Your task to perform on an android device: When is my next appointment? Image 0: 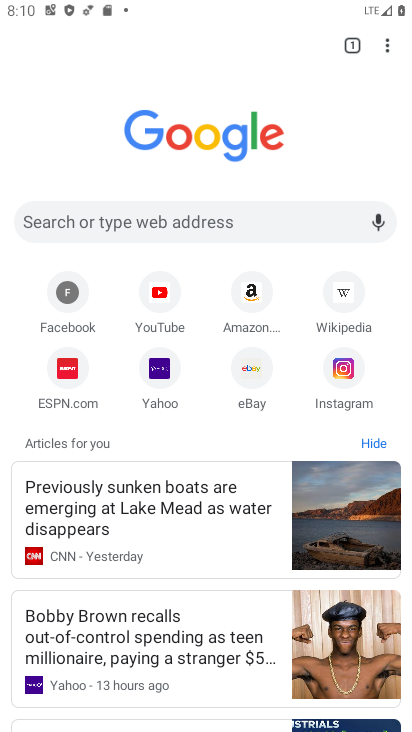
Step 0: press home button
Your task to perform on an android device: When is my next appointment? Image 1: 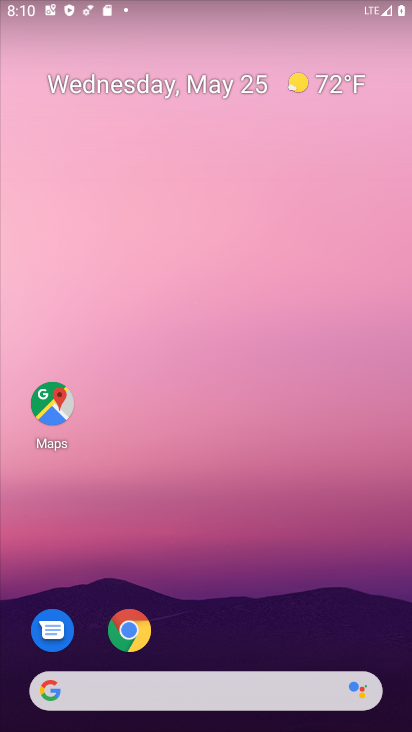
Step 1: drag from (242, 636) to (233, 288)
Your task to perform on an android device: When is my next appointment? Image 2: 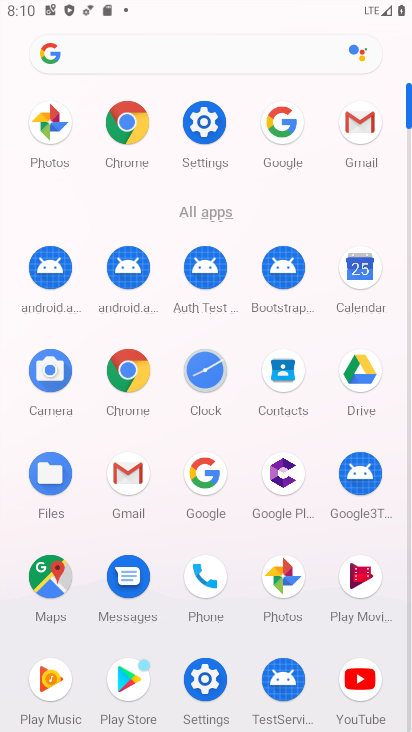
Step 2: click (354, 269)
Your task to perform on an android device: When is my next appointment? Image 3: 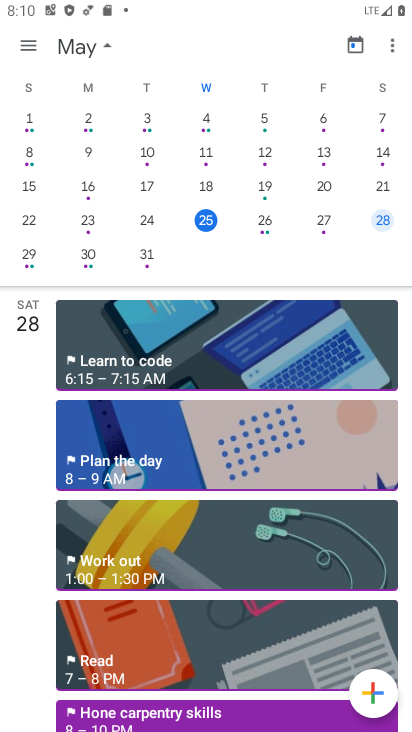
Step 3: task complete